Your task to perform on an android device: choose inbox layout in the gmail app Image 0: 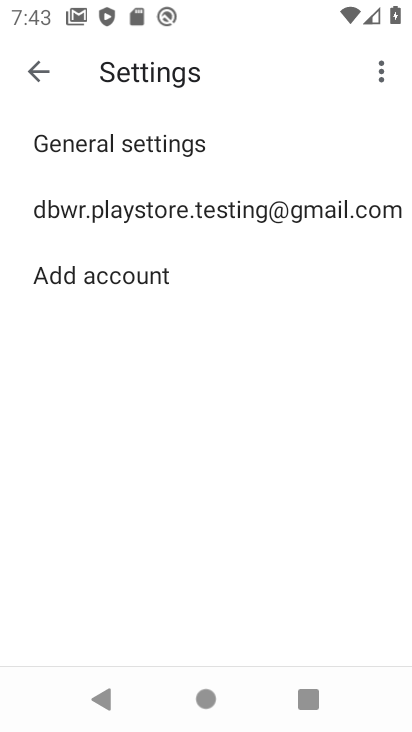
Step 0: click (335, 212)
Your task to perform on an android device: choose inbox layout in the gmail app Image 1: 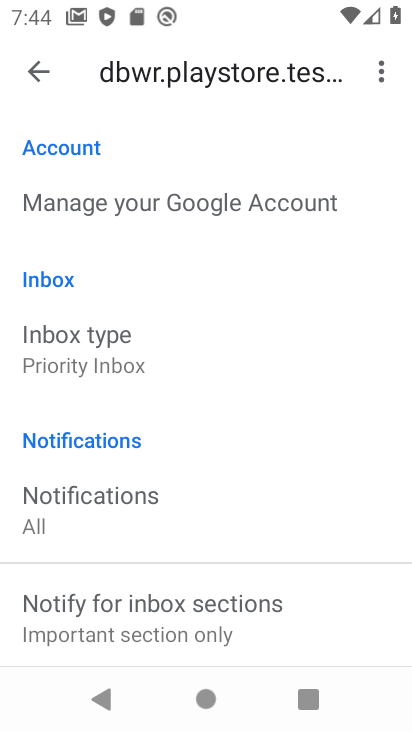
Step 1: click (77, 361)
Your task to perform on an android device: choose inbox layout in the gmail app Image 2: 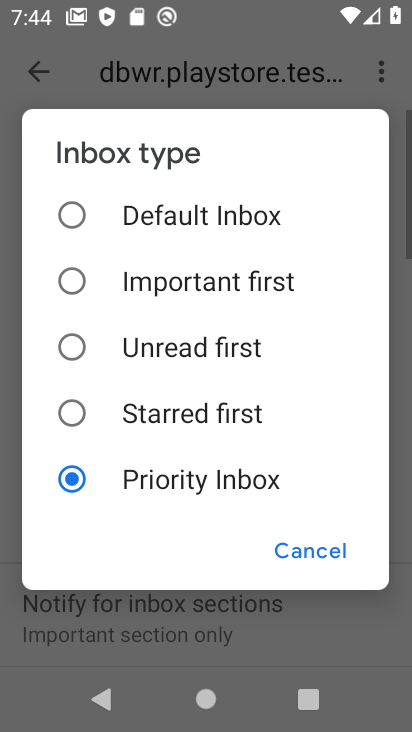
Step 2: click (218, 230)
Your task to perform on an android device: choose inbox layout in the gmail app Image 3: 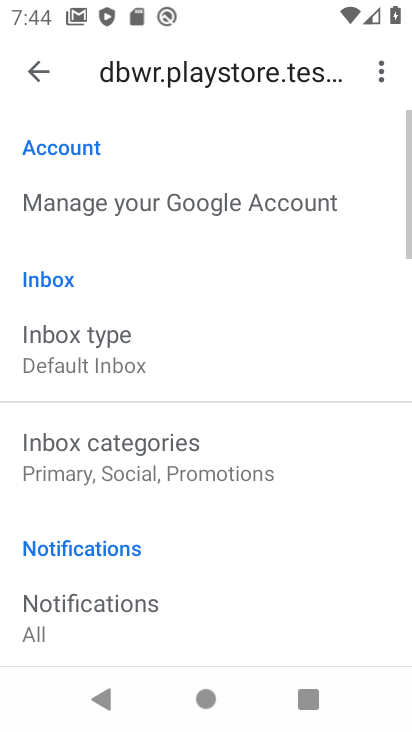
Step 3: task complete